Your task to perform on an android device: Open wifi settings Image 0: 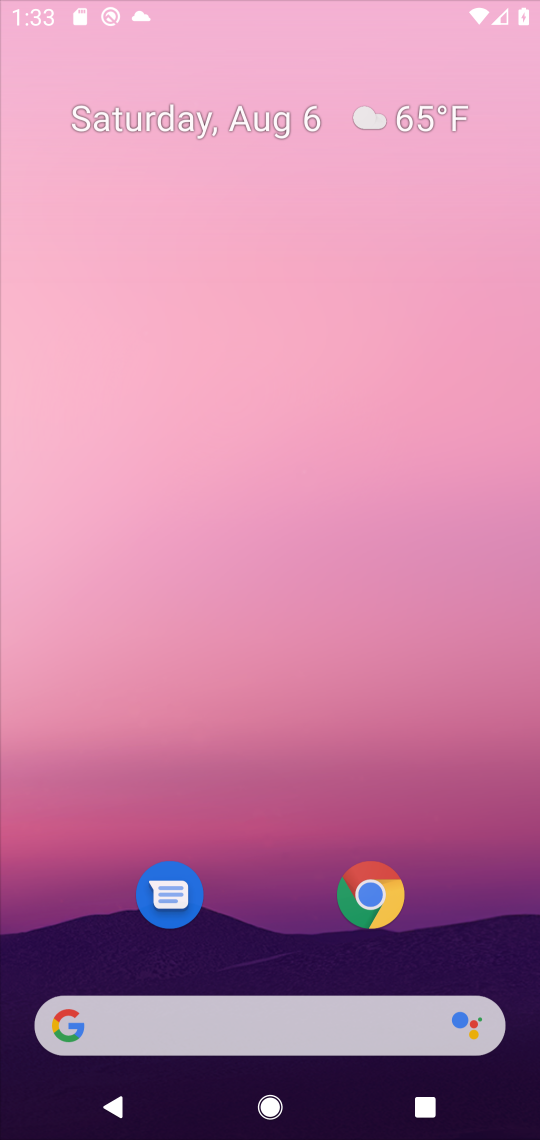
Step 0: press home button
Your task to perform on an android device: Open wifi settings Image 1: 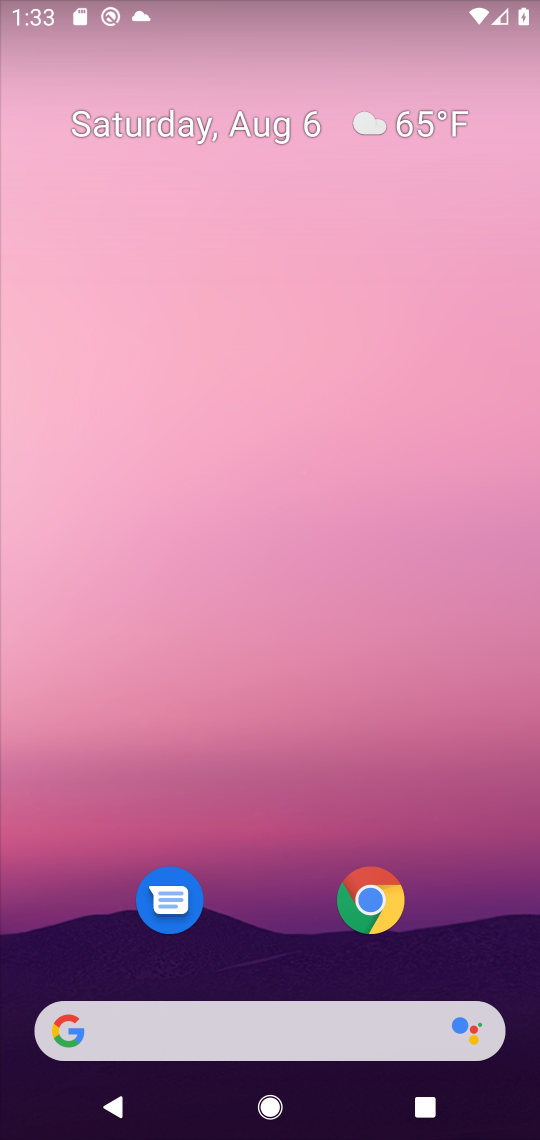
Step 1: drag from (271, 912) to (250, 106)
Your task to perform on an android device: Open wifi settings Image 2: 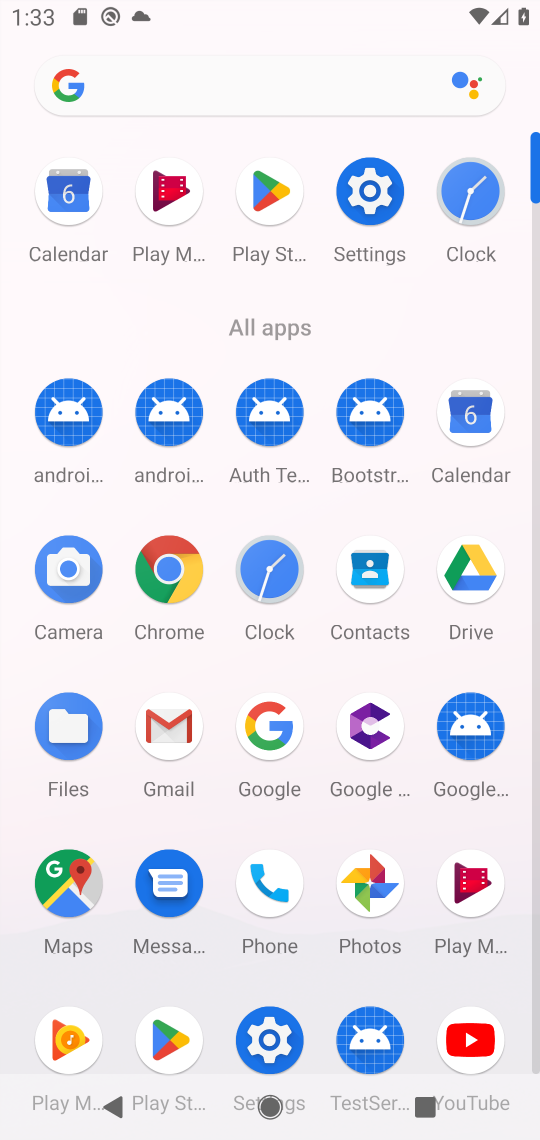
Step 2: click (381, 190)
Your task to perform on an android device: Open wifi settings Image 3: 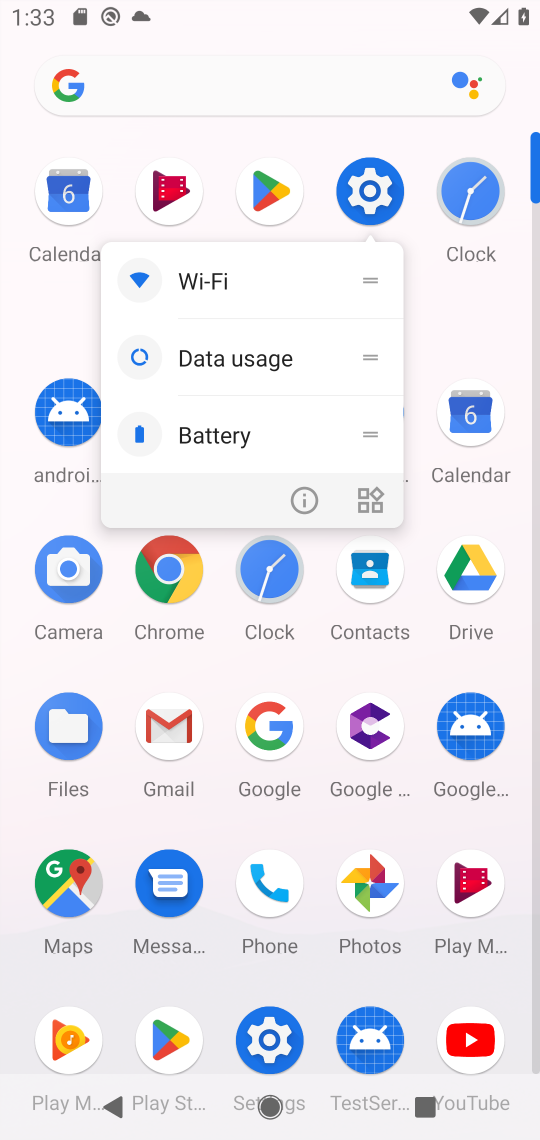
Step 3: click (386, 192)
Your task to perform on an android device: Open wifi settings Image 4: 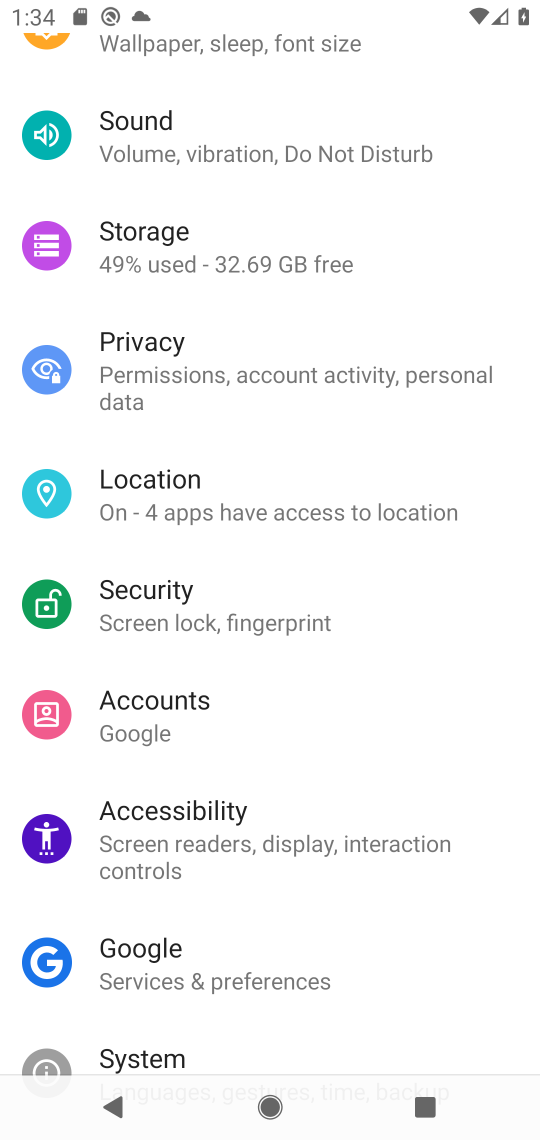
Step 4: drag from (300, 211) to (191, 878)
Your task to perform on an android device: Open wifi settings Image 5: 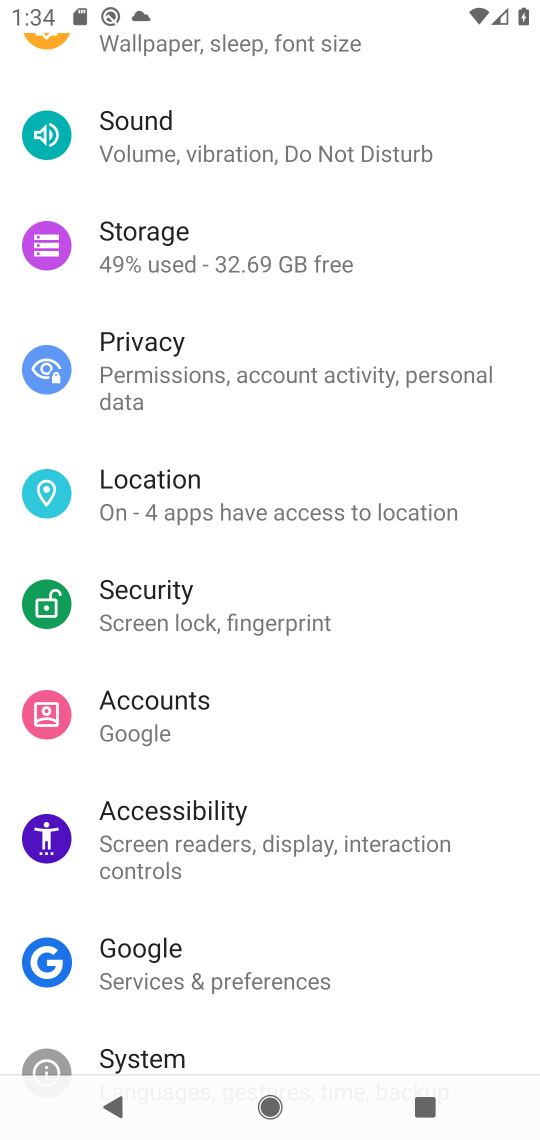
Step 5: drag from (224, 92) to (217, 748)
Your task to perform on an android device: Open wifi settings Image 6: 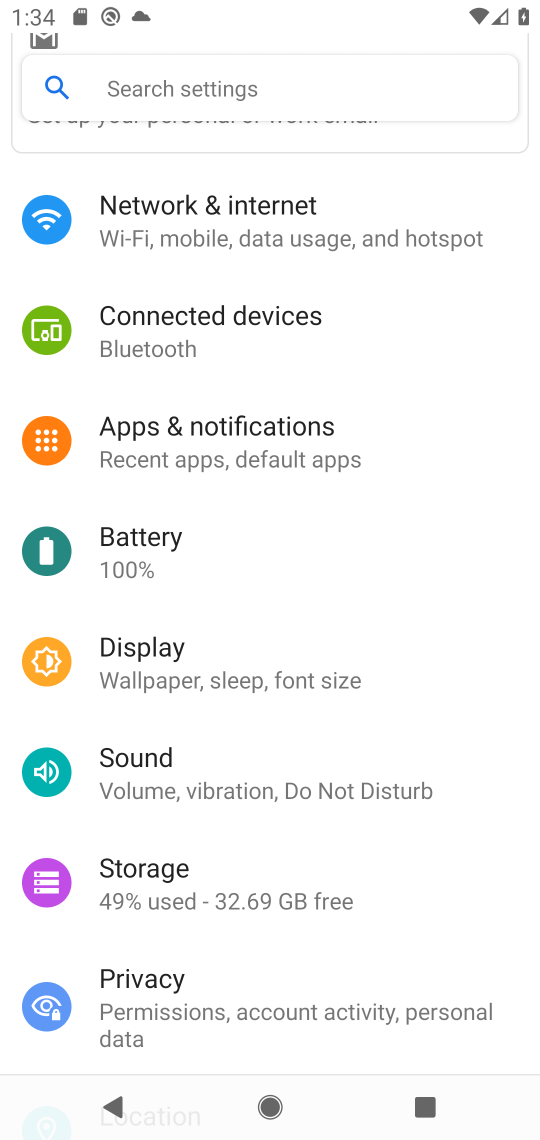
Step 6: click (253, 213)
Your task to perform on an android device: Open wifi settings Image 7: 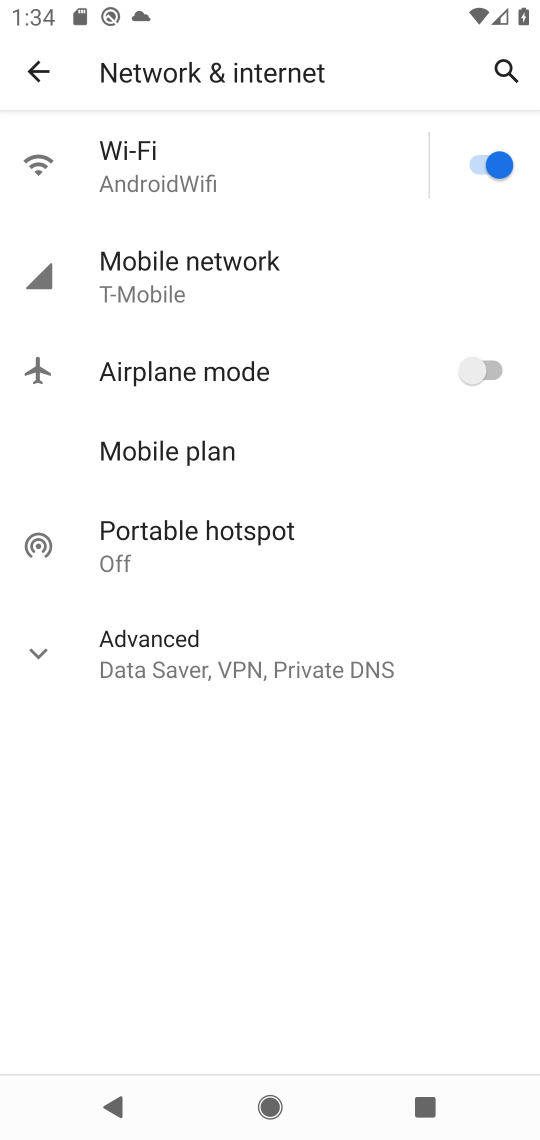
Step 7: task complete